Your task to perform on an android device: turn notification dots on Image 0: 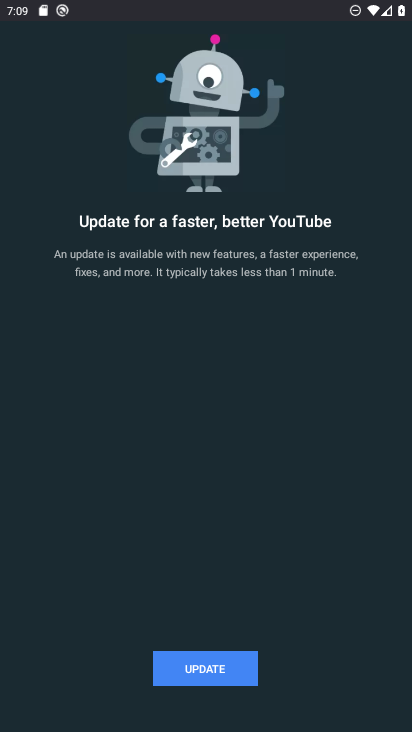
Step 0: press home button
Your task to perform on an android device: turn notification dots on Image 1: 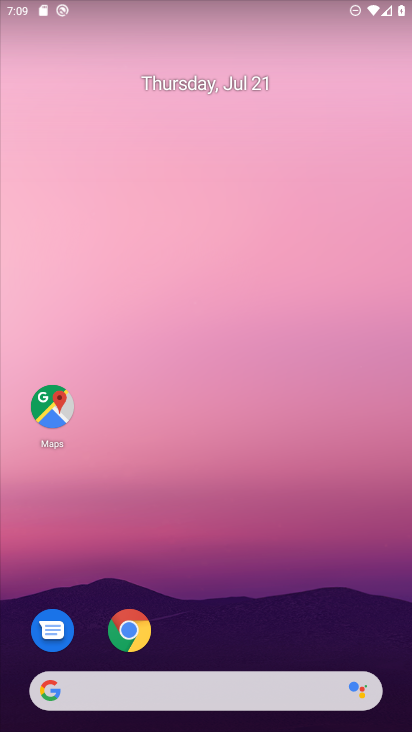
Step 1: drag from (245, 584) to (294, 187)
Your task to perform on an android device: turn notification dots on Image 2: 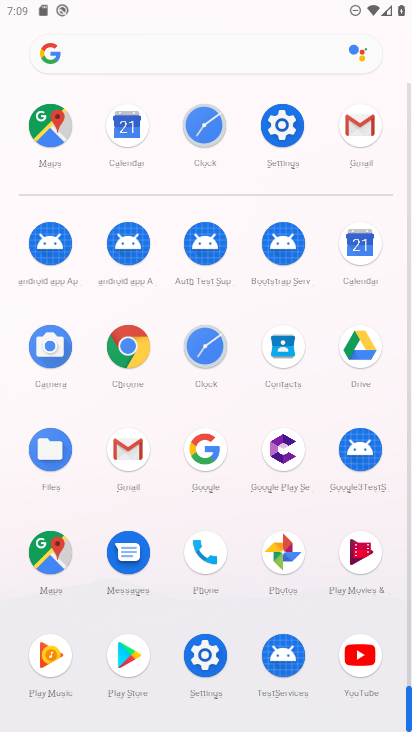
Step 2: click (283, 132)
Your task to perform on an android device: turn notification dots on Image 3: 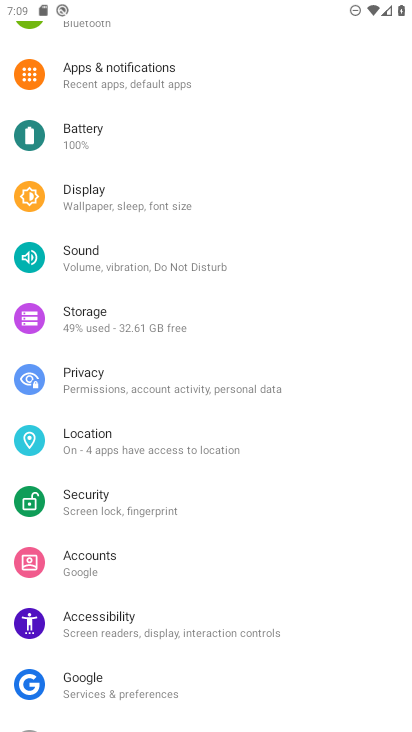
Step 3: click (172, 80)
Your task to perform on an android device: turn notification dots on Image 4: 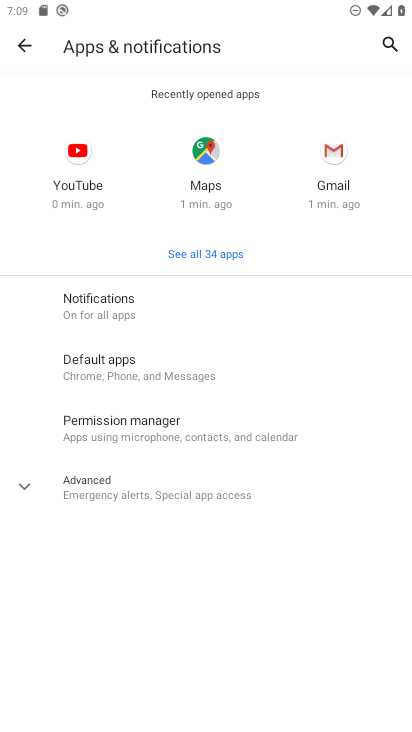
Step 4: click (118, 313)
Your task to perform on an android device: turn notification dots on Image 5: 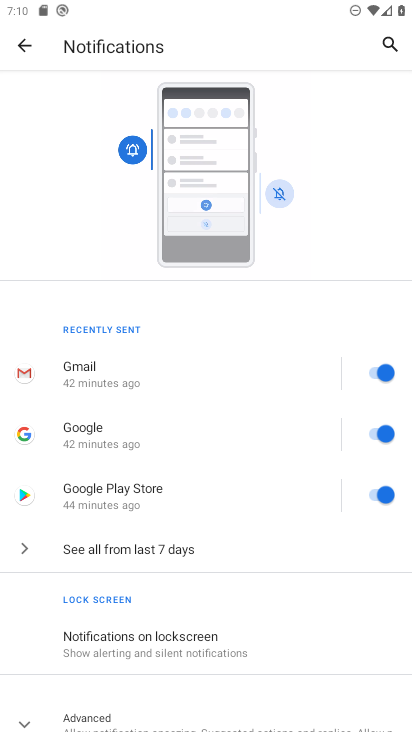
Step 5: drag from (180, 599) to (204, 372)
Your task to perform on an android device: turn notification dots on Image 6: 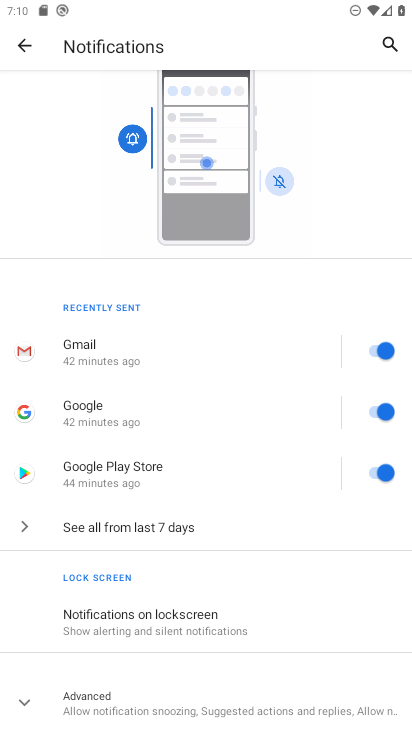
Step 6: click (130, 699)
Your task to perform on an android device: turn notification dots on Image 7: 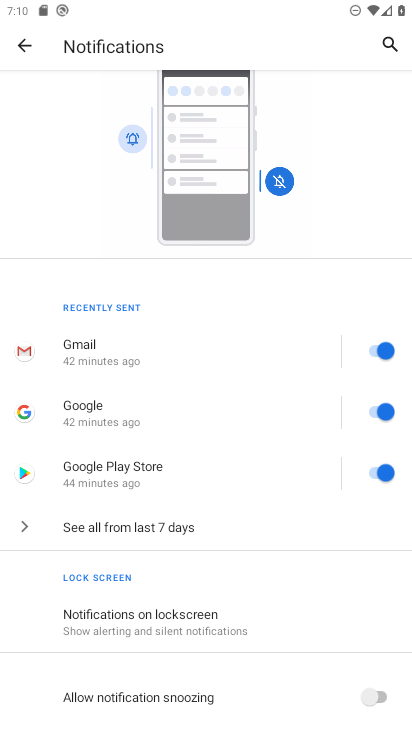
Step 7: drag from (241, 666) to (301, 387)
Your task to perform on an android device: turn notification dots on Image 8: 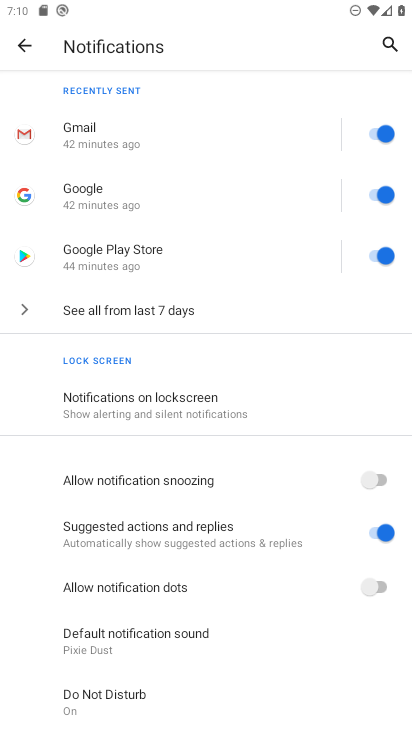
Step 8: click (381, 471)
Your task to perform on an android device: turn notification dots on Image 9: 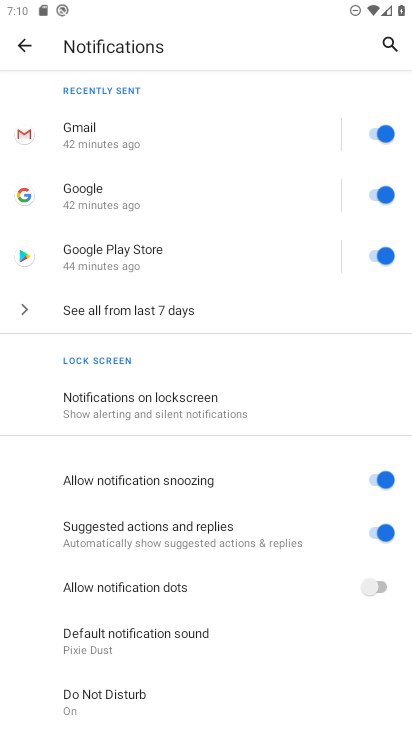
Step 9: task complete